Your task to perform on an android device: Do I have any events tomorrow? Image 0: 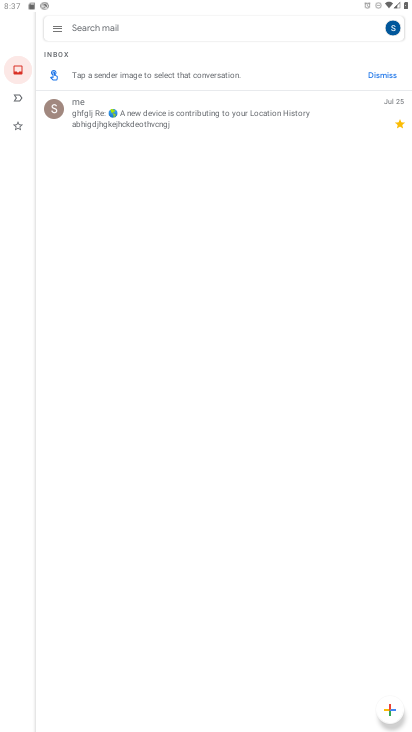
Step 0: press home button
Your task to perform on an android device: Do I have any events tomorrow? Image 1: 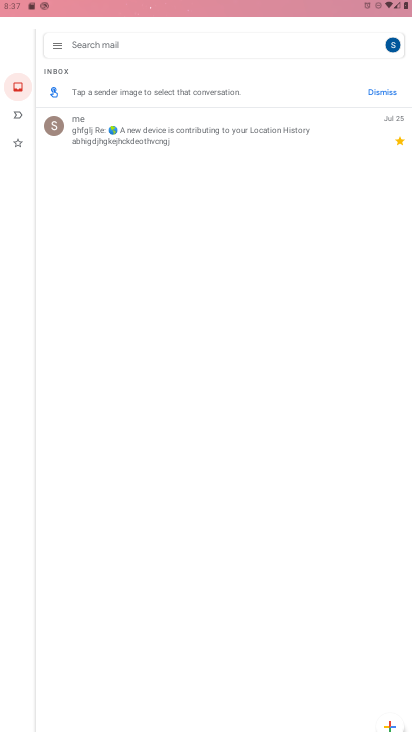
Step 1: click (231, 5)
Your task to perform on an android device: Do I have any events tomorrow? Image 2: 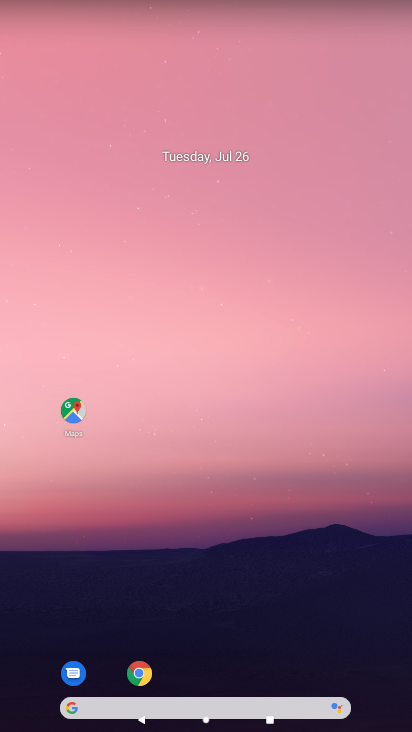
Step 2: drag from (378, 634) to (159, 10)
Your task to perform on an android device: Do I have any events tomorrow? Image 3: 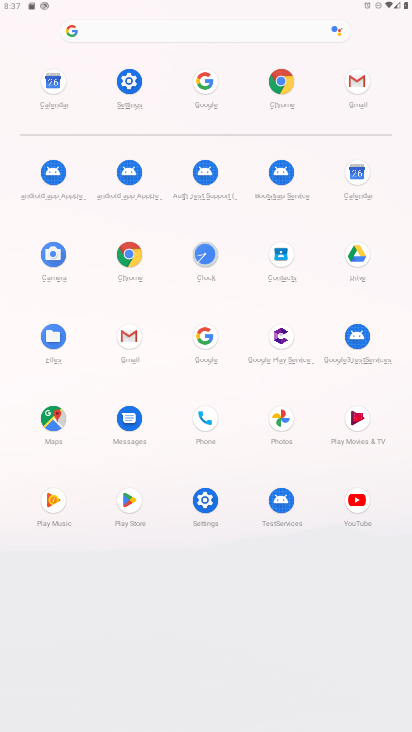
Step 3: click (353, 178)
Your task to perform on an android device: Do I have any events tomorrow? Image 4: 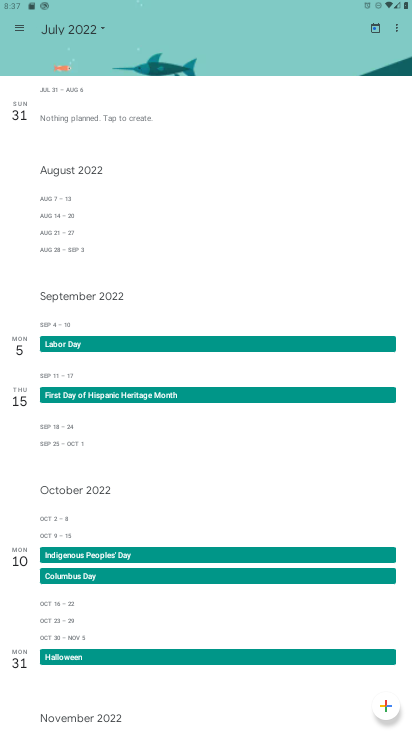
Step 4: task complete